Your task to perform on an android device: turn smart compose on in the gmail app Image 0: 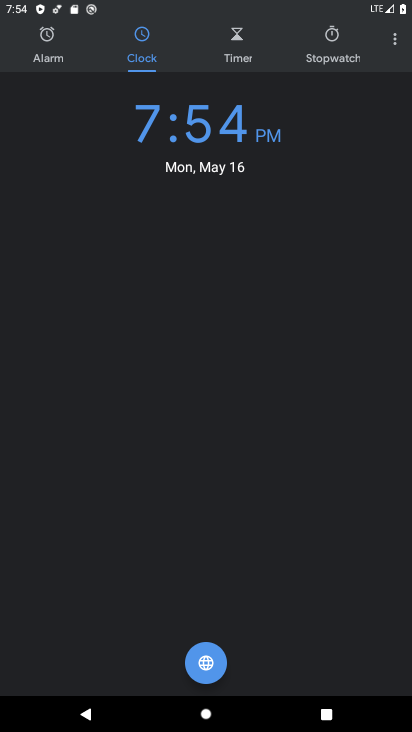
Step 0: press back button
Your task to perform on an android device: turn smart compose on in the gmail app Image 1: 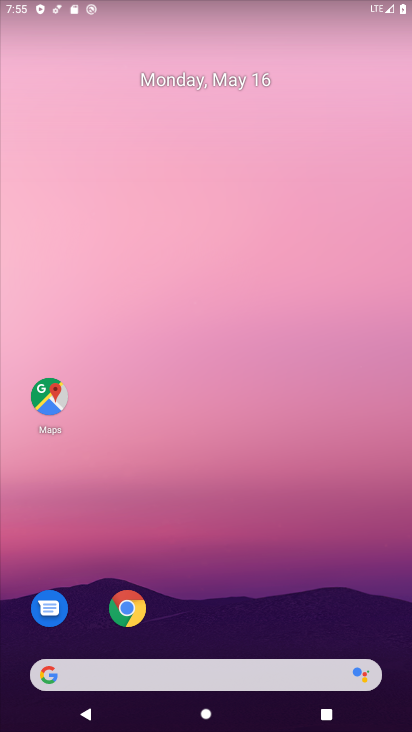
Step 1: drag from (252, 583) to (226, 162)
Your task to perform on an android device: turn smart compose on in the gmail app Image 2: 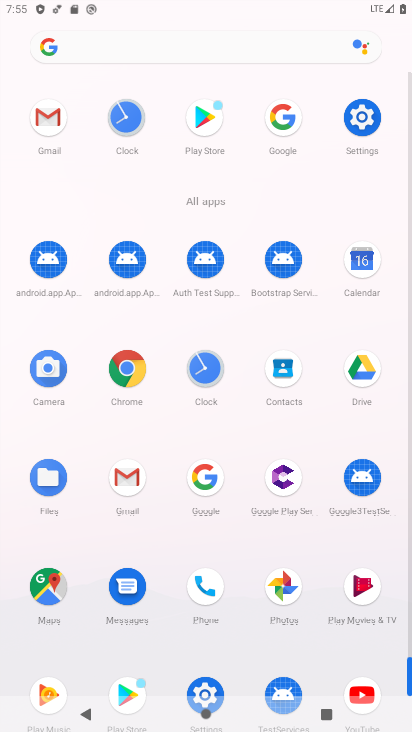
Step 2: click (46, 116)
Your task to perform on an android device: turn smart compose on in the gmail app Image 3: 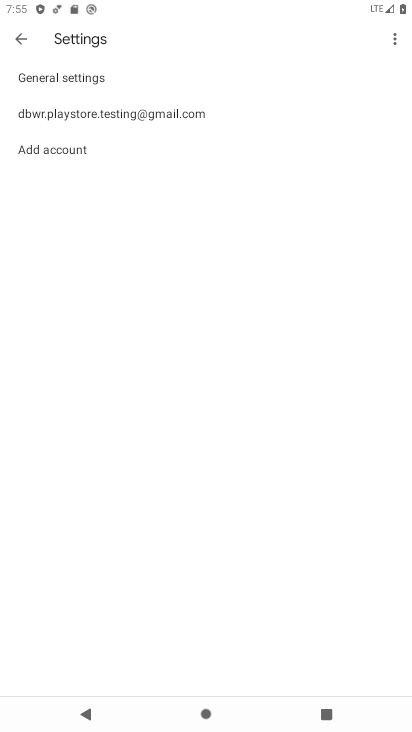
Step 3: click (68, 115)
Your task to perform on an android device: turn smart compose on in the gmail app Image 4: 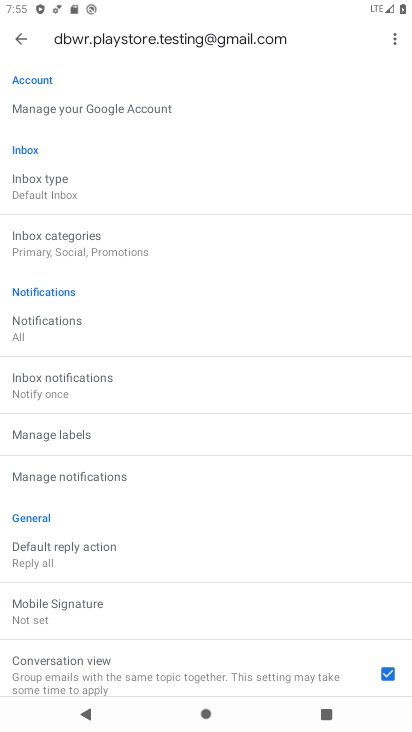
Step 4: task complete